Your task to perform on an android device: turn smart compose on in the gmail app Image 0: 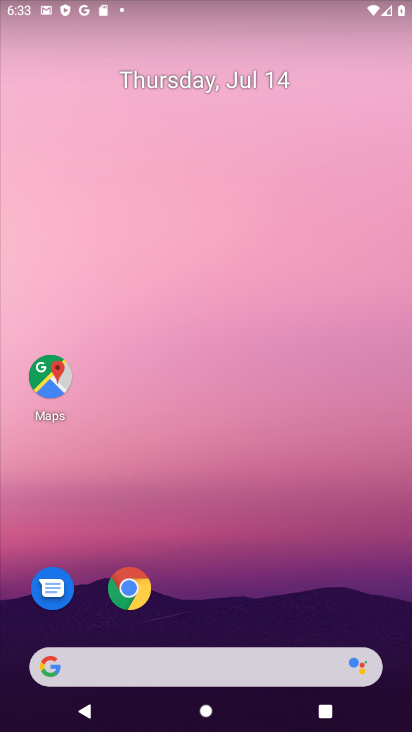
Step 0: click (46, 363)
Your task to perform on an android device: turn smart compose on in the gmail app Image 1: 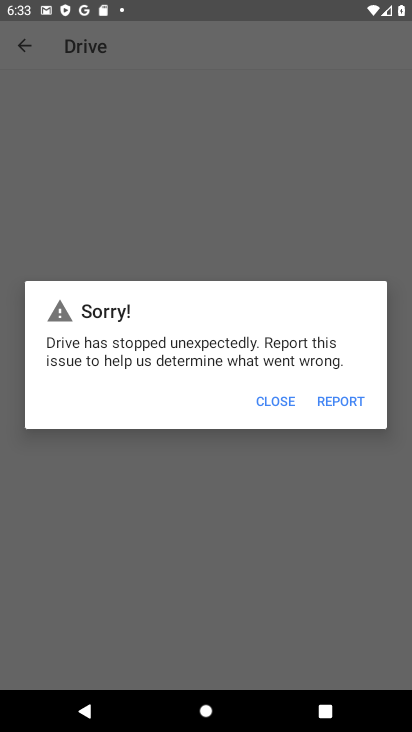
Step 1: click (273, 399)
Your task to perform on an android device: turn smart compose on in the gmail app Image 2: 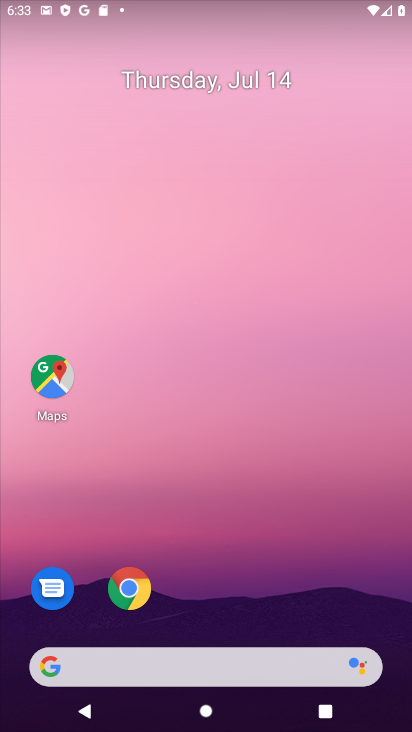
Step 2: drag from (244, 576) to (170, 171)
Your task to perform on an android device: turn smart compose on in the gmail app Image 3: 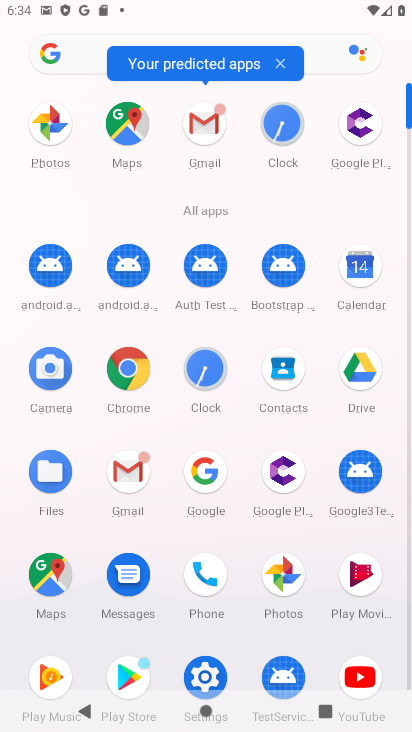
Step 3: click (201, 117)
Your task to perform on an android device: turn smart compose on in the gmail app Image 4: 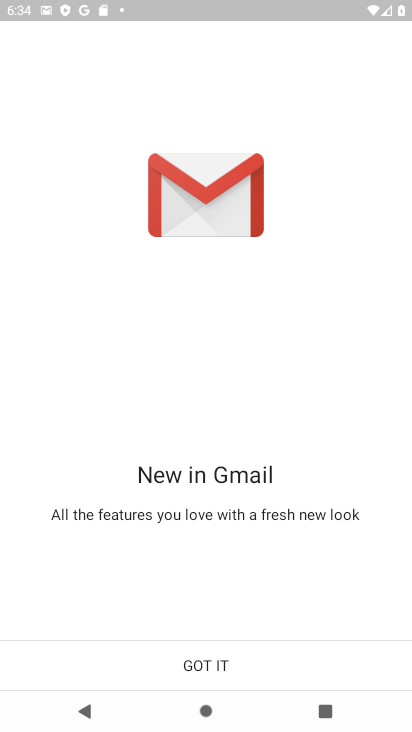
Step 4: click (208, 658)
Your task to perform on an android device: turn smart compose on in the gmail app Image 5: 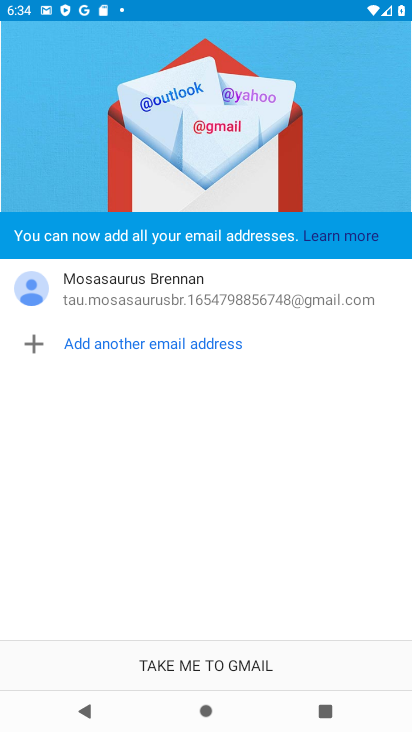
Step 5: click (207, 666)
Your task to perform on an android device: turn smart compose on in the gmail app Image 6: 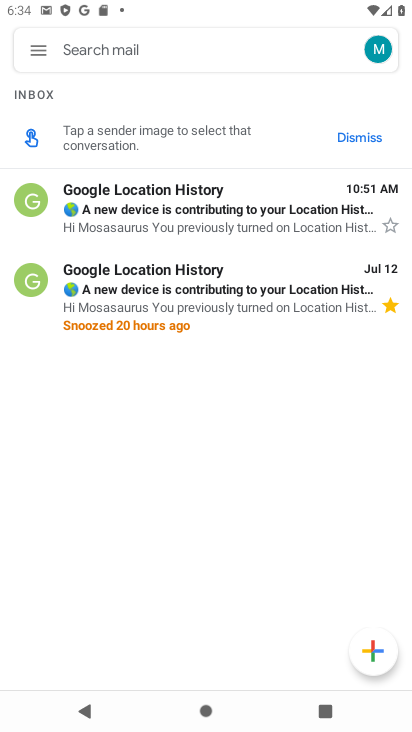
Step 6: click (37, 47)
Your task to perform on an android device: turn smart compose on in the gmail app Image 7: 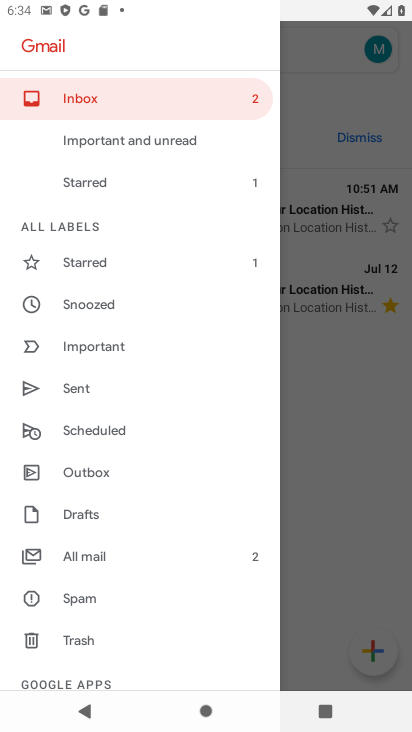
Step 7: drag from (183, 622) to (175, 440)
Your task to perform on an android device: turn smart compose on in the gmail app Image 8: 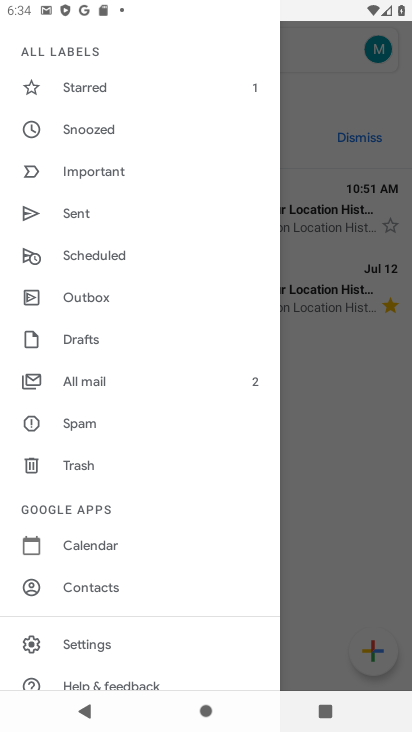
Step 8: click (94, 642)
Your task to perform on an android device: turn smart compose on in the gmail app Image 9: 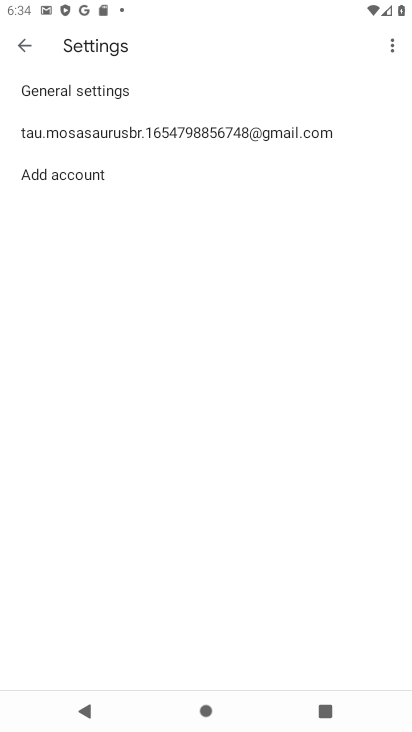
Step 9: click (71, 131)
Your task to perform on an android device: turn smart compose on in the gmail app Image 10: 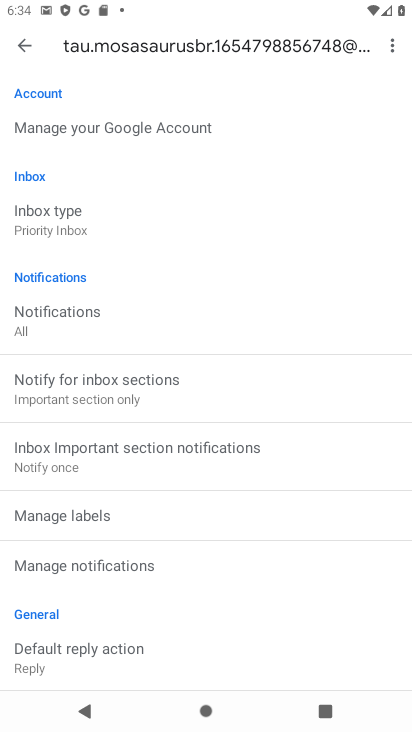
Step 10: task complete